Your task to perform on an android device: toggle pop-ups in chrome Image 0: 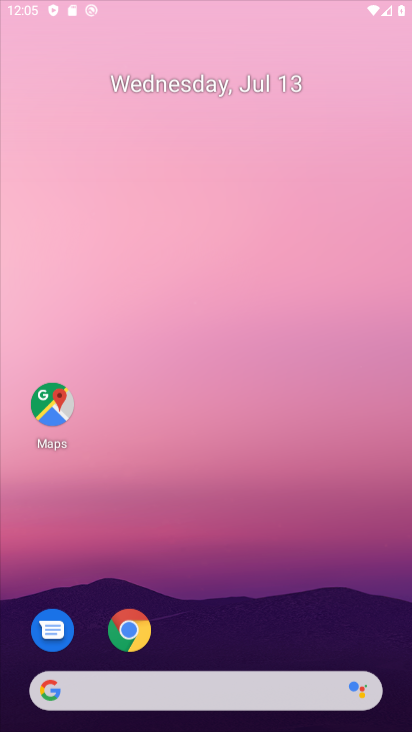
Step 0: press home button
Your task to perform on an android device: toggle pop-ups in chrome Image 1: 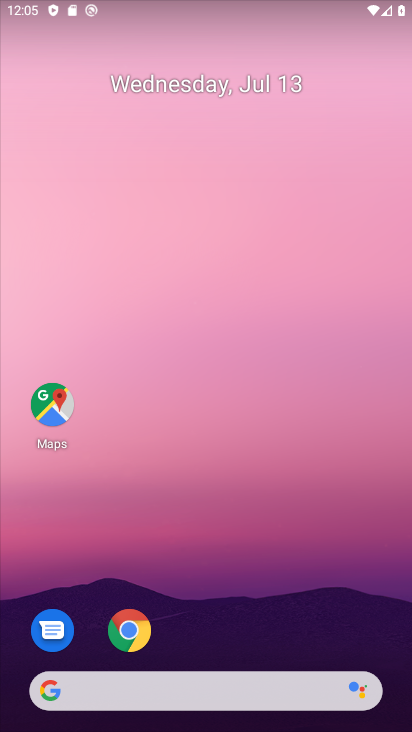
Step 1: drag from (211, 657) to (246, 64)
Your task to perform on an android device: toggle pop-ups in chrome Image 2: 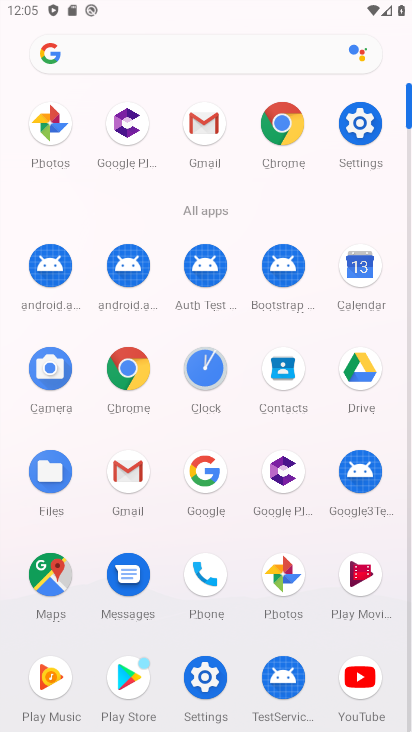
Step 2: press home button
Your task to perform on an android device: toggle pop-ups in chrome Image 3: 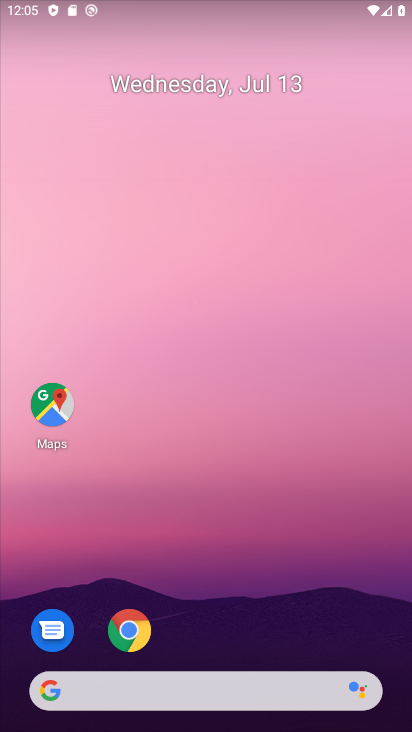
Step 3: click (128, 623)
Your task to perform on an android device: toggle pop-ups in chrome Image 4: 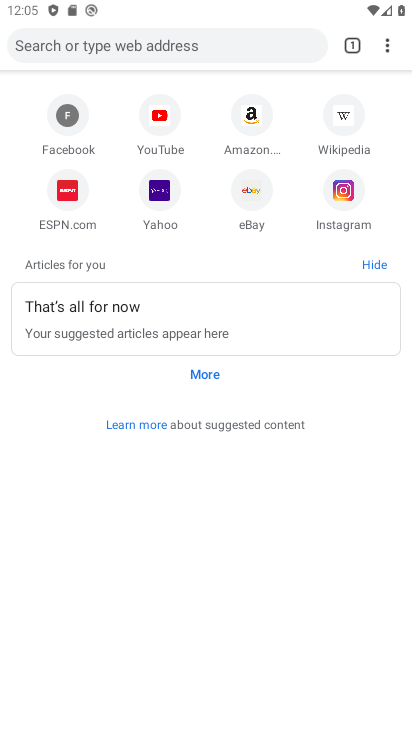
Step 4: click (389, 40)
Your task to perform on an android device: toggle pop-ups in chrome Image 5: 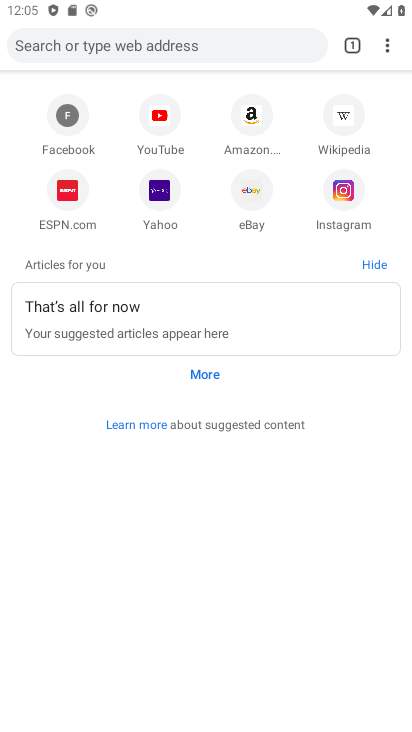
Step 5: click (387, 46)
Your task to perform on an android device: toggle pop-ups in chrome Image 6: 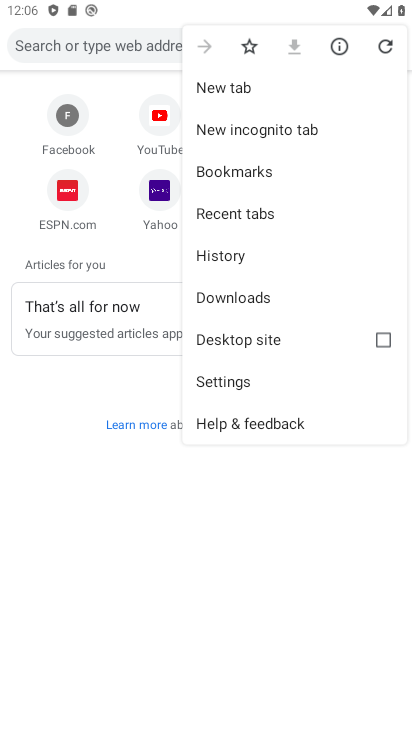
Step 6: click (262, 382)
Your task to perform on an android device: toggle pop-ups in chrome Image 7: 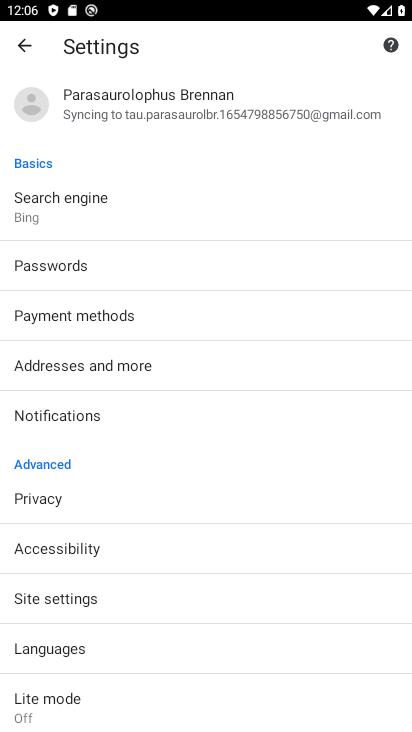
Step 7: click (124, 598)
Your task to perform on an android device: toggle pop-ups in chrome Image 8: 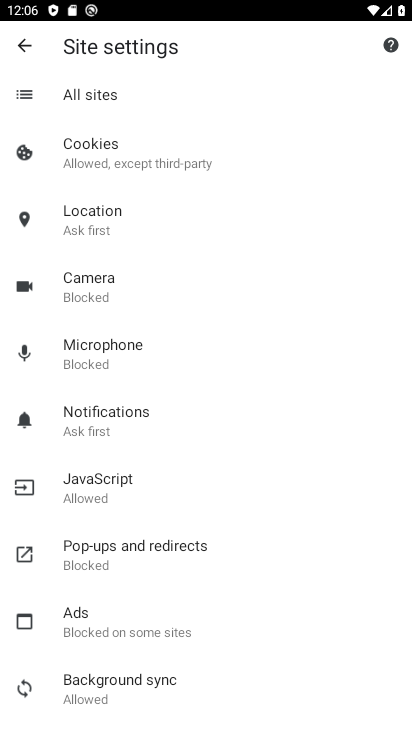
Step 8: click (133, 559)
Your task to perform on an android device: toggle pop-ups in chrome Image 9: 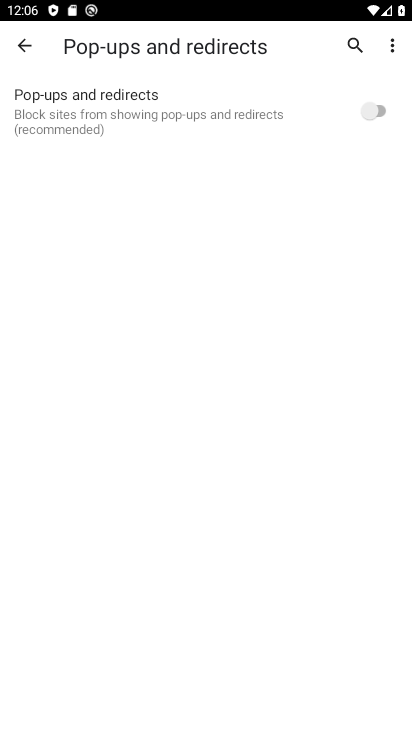
Step 9: click (380, 103)
Your task to perform on an android device: toggle pop-ups in chrome Image 10: 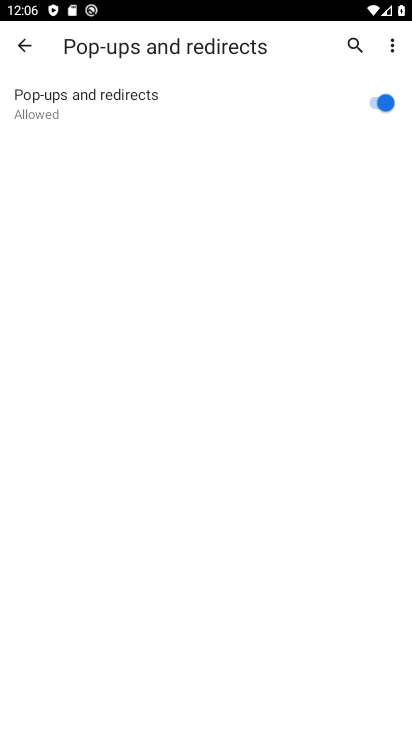
Step 10: task complete